Your task to perform on an android device: Open my contact list Image 0: 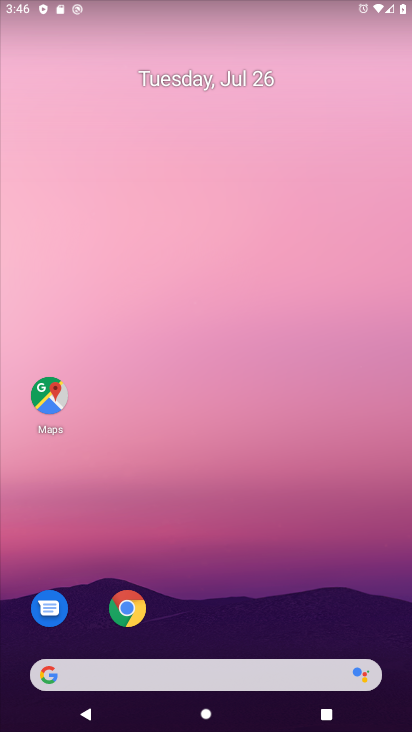
Step 0: drag from (383, 718) to (300, 44)
Your task to perform on an android device: Open my contact list Image 1: 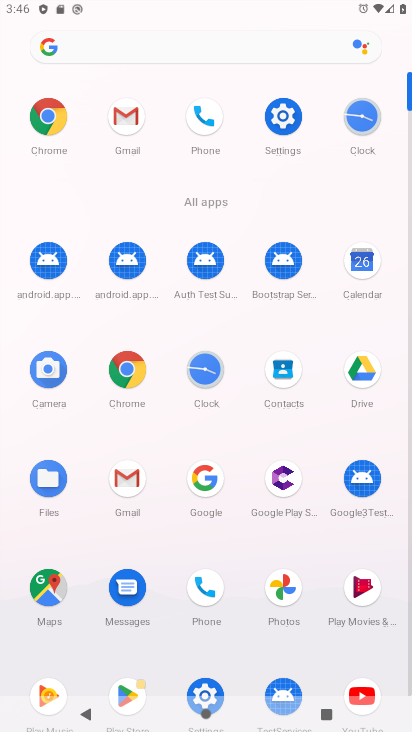
Step 1: click (287, 378)
Your task to perform on an android device: Open my contact list Image 2: 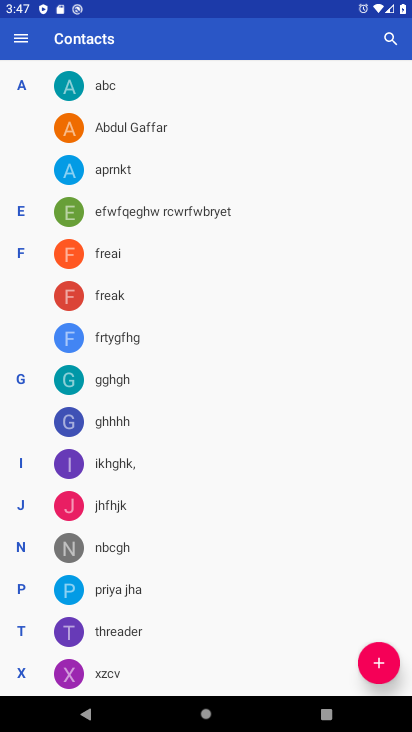
Step 2: task complete